Your task to perform on an android device: Open CNN.com Image 0: 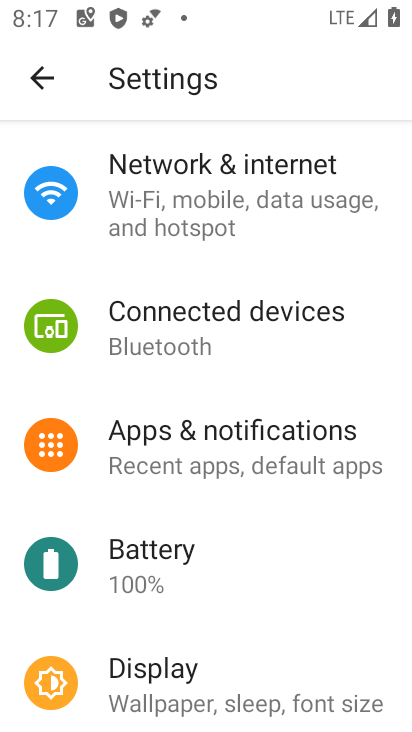
Step 0: press home button
Your task to perform on an android device: Open CNN.com Image 1: 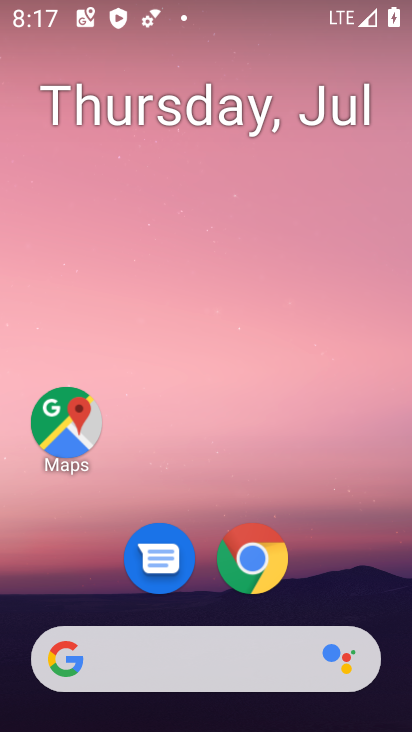
Step 1: drag from (259, 633) to (149, 35)
Your task to perform on an android device: Open CNN.com Image 2: 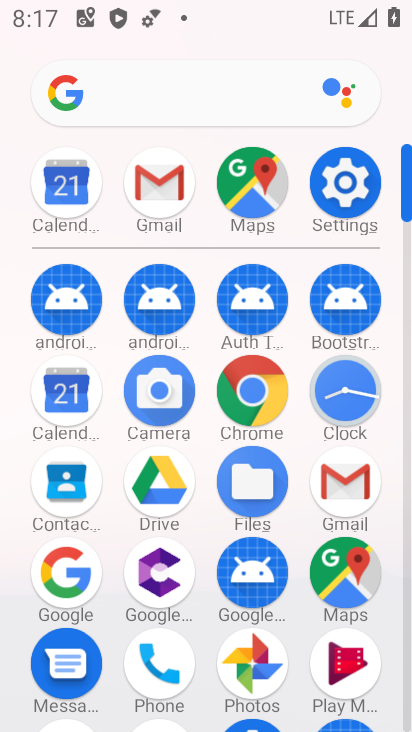
Step 2: click (249, 410)
Your task to perform on an android device: Open CNN.com Image 3: 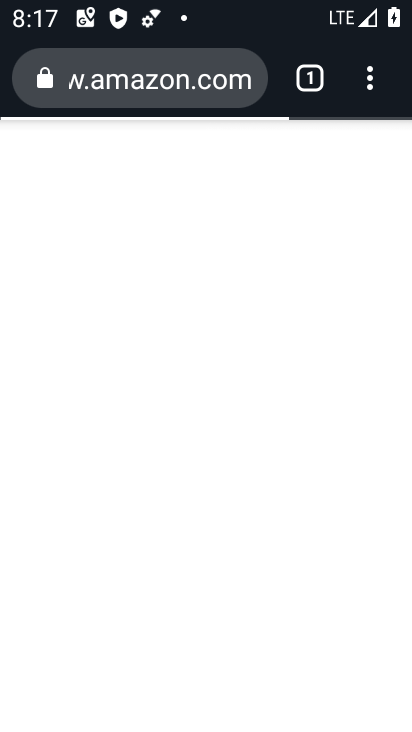
Step 3: click (220, 89)
Your task to perform on an android device: Open CNN.com Image 4: 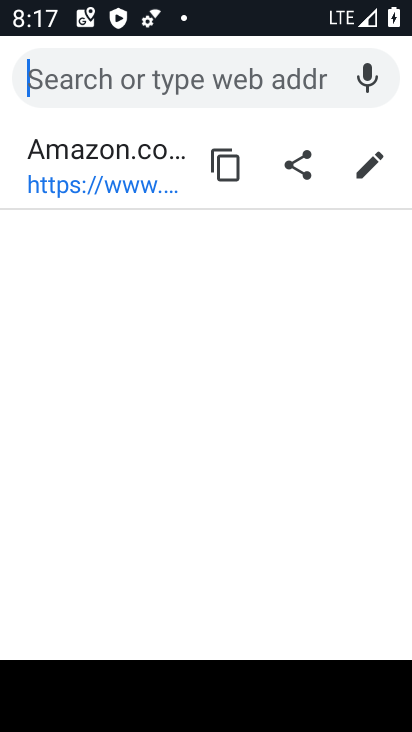
Step 4: type "cnn"
Your task to perform on an android device: Open CNN.com Image 5: 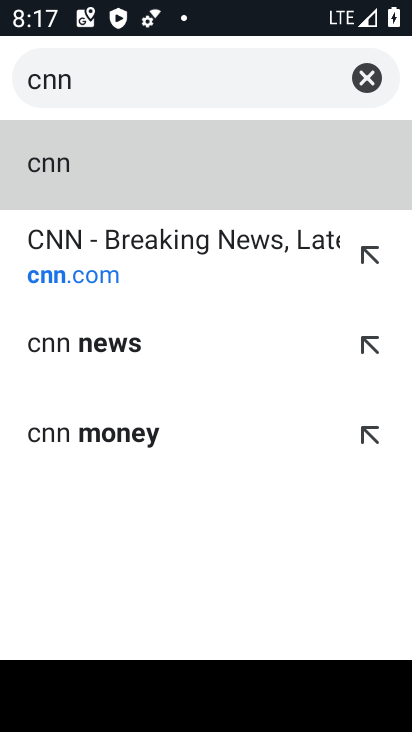
Step 5: click (93, 285)
Your task to perform on an android device: Open CNN.com Image 6: 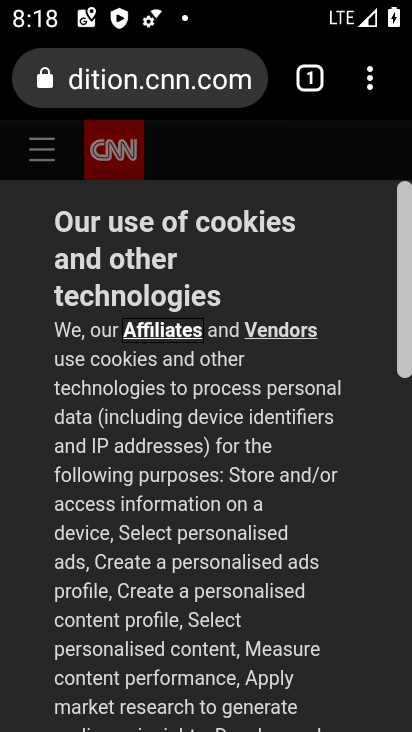
Step 6: task complete